Your task to perform on an android device: Go to Yahoo.com Image 0: 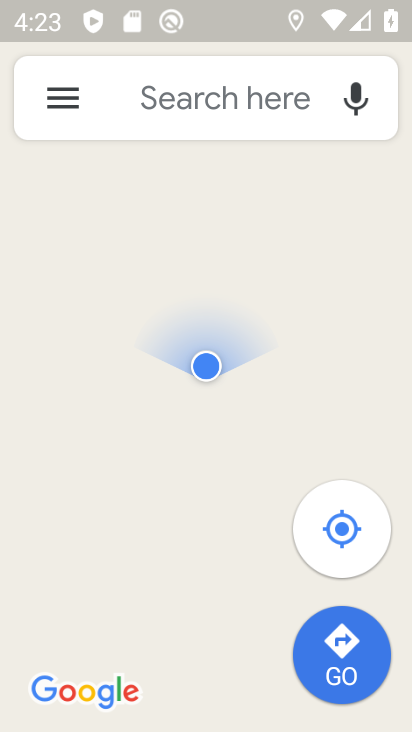
Step 0: press back button
Your task to perform on an android device: Go to Yahoo.com Image 1: 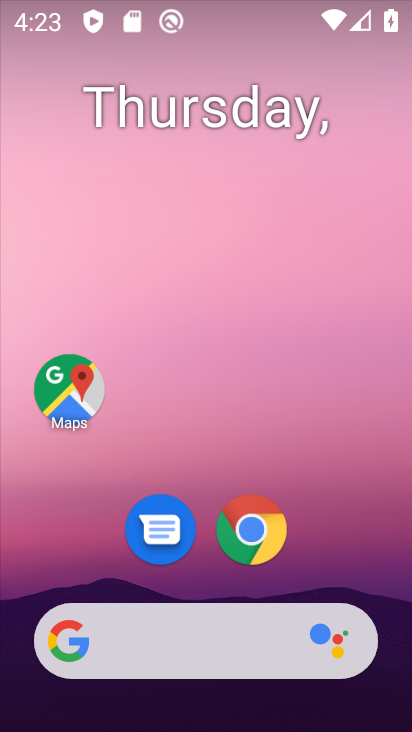
Step 1: click (270, 523)
Your task to perform on an android device: Go to Yahoo.com Image 2: 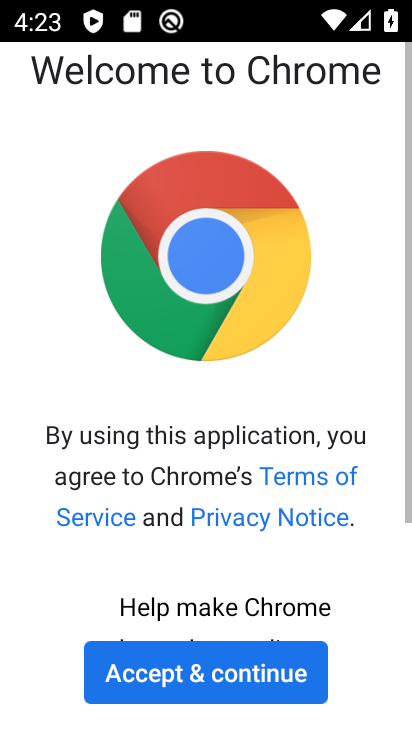
Step 2: click (253, 678)
Your task to perform on an android device: Go to Yahoo.com Image 3: 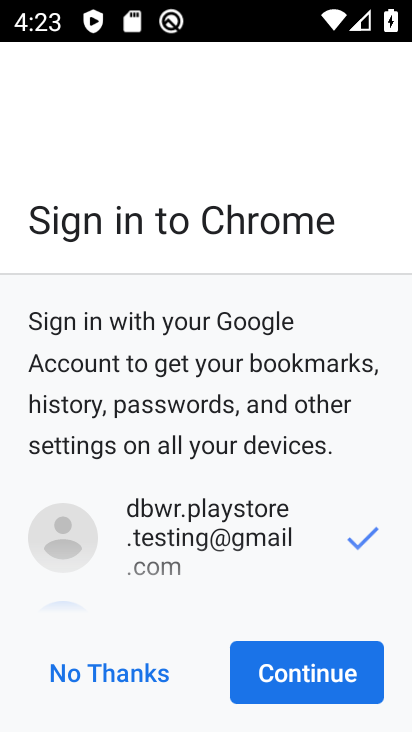
Step 3: click (311, 677)
Your task to perform on an android device: Go to Yahoo.com Image 4: 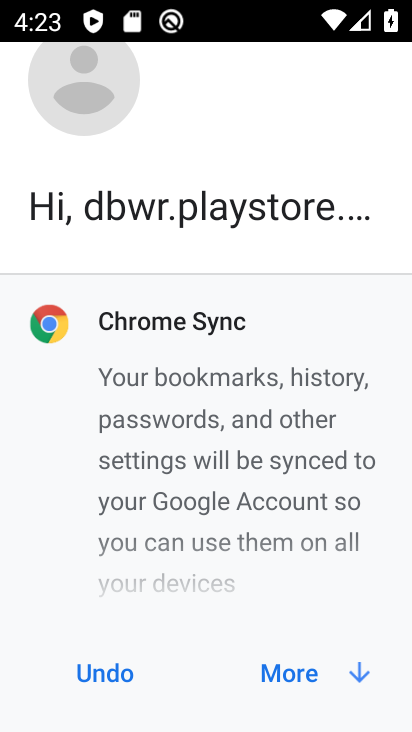
Step 4: click (307, 682)
Your task to perform on an android device: Go to Yahoo.com Image 5: 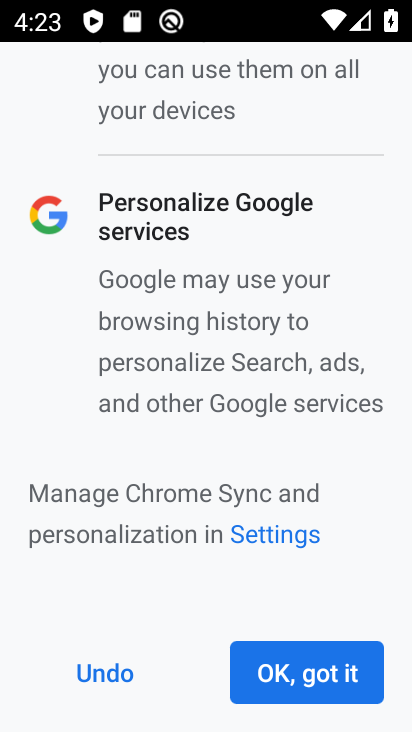
Step 5: click (307, 682)
Your task to perform on an android device: Go to Yahoo.com Image 6: 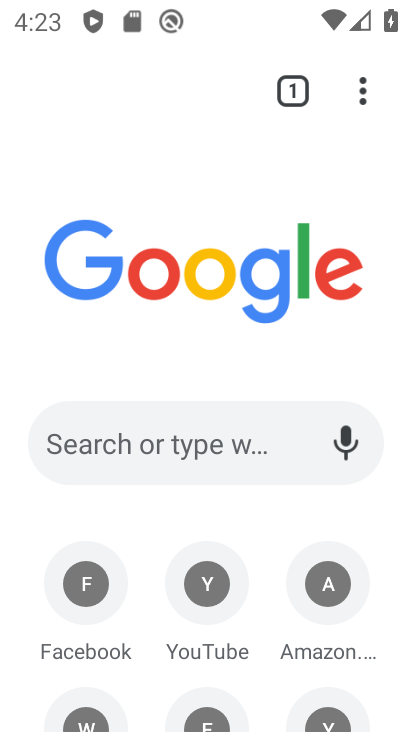
Step 6: drag from (264, 682) to (370, 422)
Your task to perform on an android device: Go to Yahoo.com Image 7: 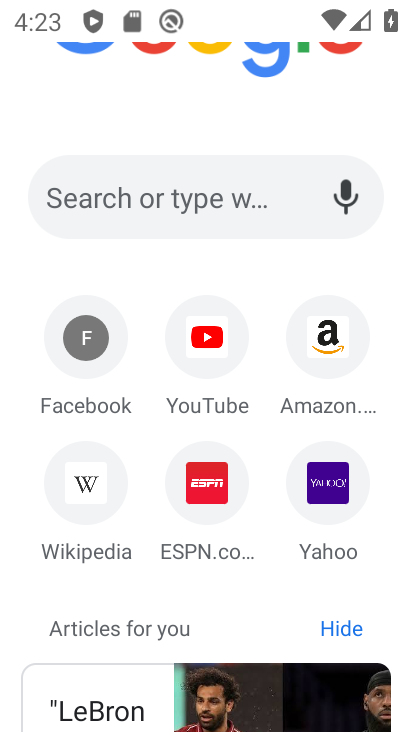
Step 7: click (344, 495)
Your task to perform on an android device: Go to Yahoo.com Image 8: 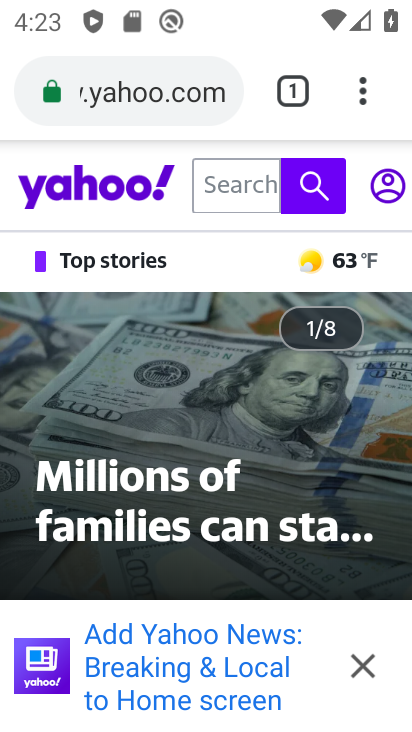
Step 8: click (368, 659)
Your task to perform on an android device: Go to Yahoo.com Image 9: 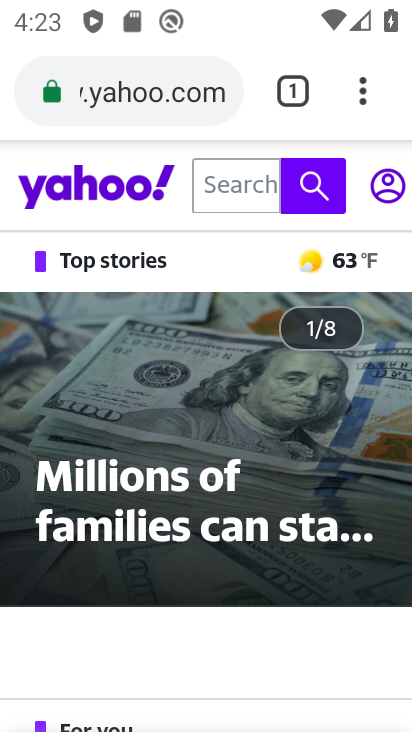
Step 9: task complete